Your task to perform on an android device: change the clock style Image 0: 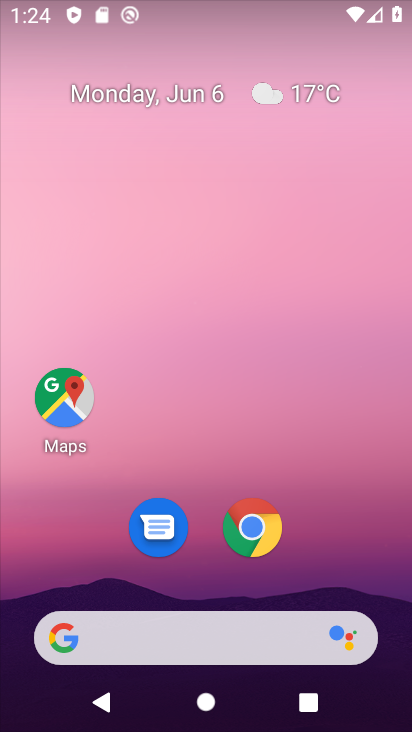
Step 0: drag from (232, 727) to (209, 0)
Your task to perform on an android device: change the clock style Image 1: 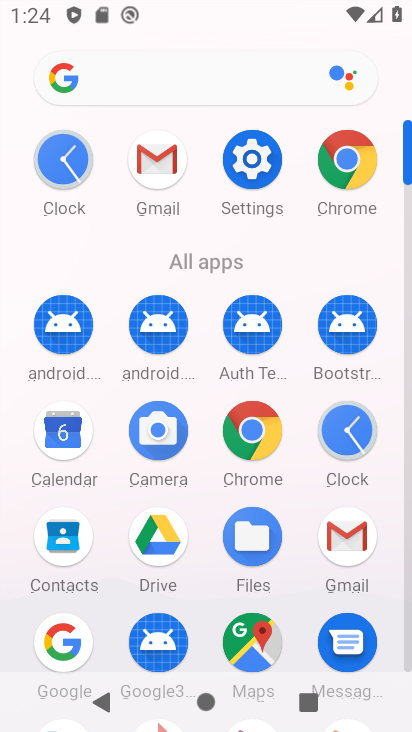
Step 1: click (349, 432)
Your task to perform on an android device: change the clock style Image 2: 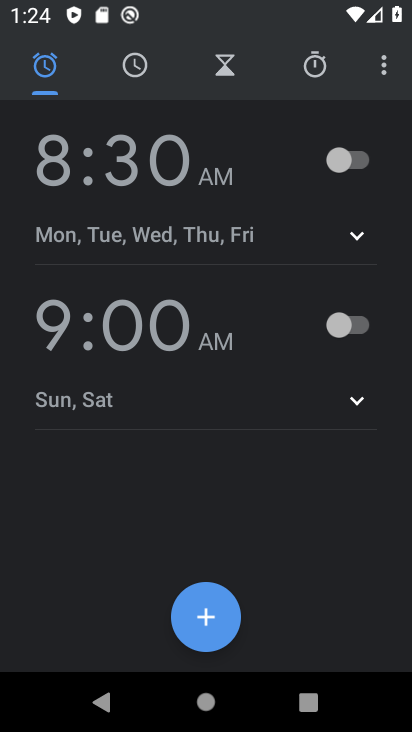
Step 2: click (388, 73)
Your task to perform on an android device: change the clock style Image 3: 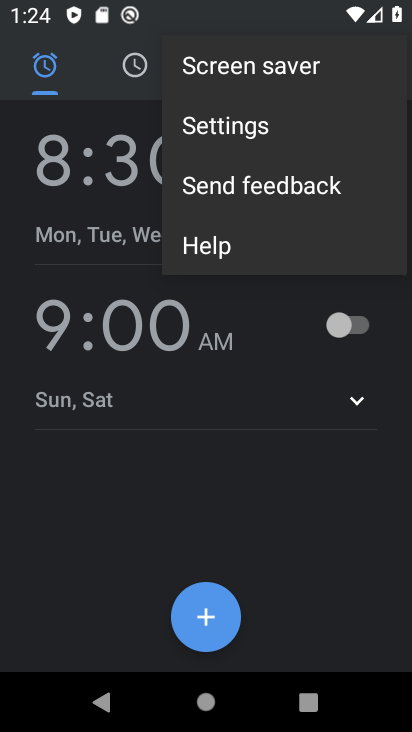
Step 3: click (237, 128)
Your task to perform on an android device: change the clock style Image 4: 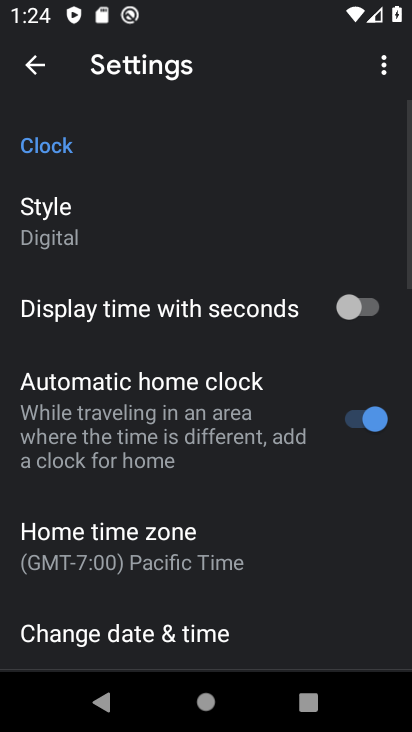
Step 4: click (45, 232)
Your task to perform on an android device: change the clock style Image 5: 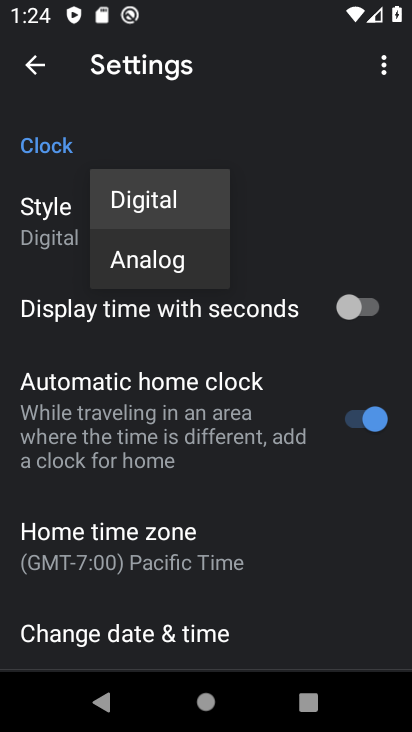
Step 5: click (161, 258)
Your task to perform on an android device: change the clock style Image 6: 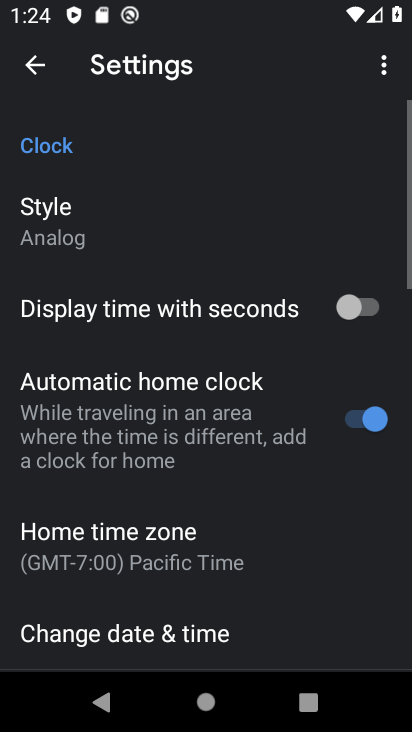
Step 6: task complete